Your task to perform on an android device: toggle wifi Image 0: 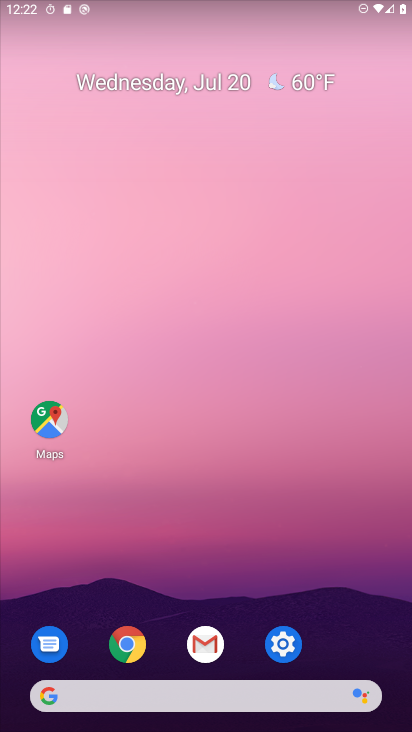
Step 0: click (274, 643)
Your task to perform on an android device: toggle wifi Image 1: 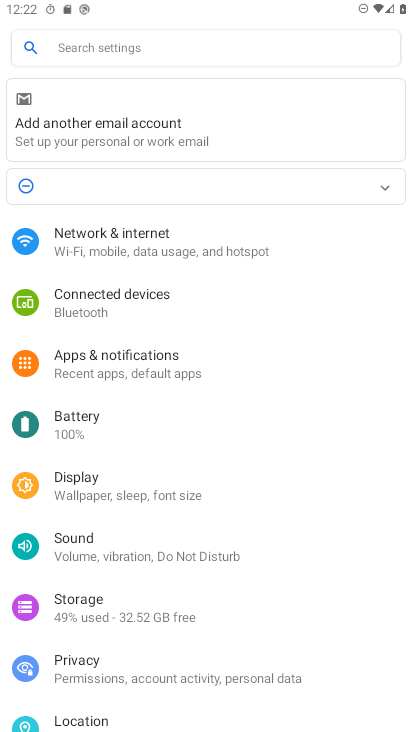
Step 1: click (119, 234)
Your task to perform on an android device: toggle wifi Image 2: 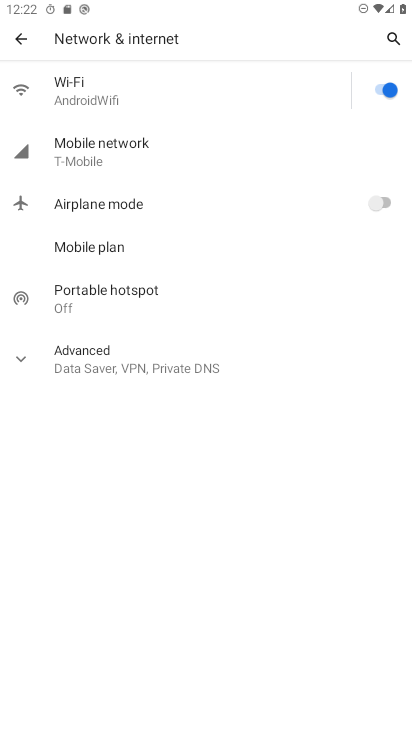
Step 2: click (99, 108)
Your task to perform on an android device: toggle wifi Image 3: 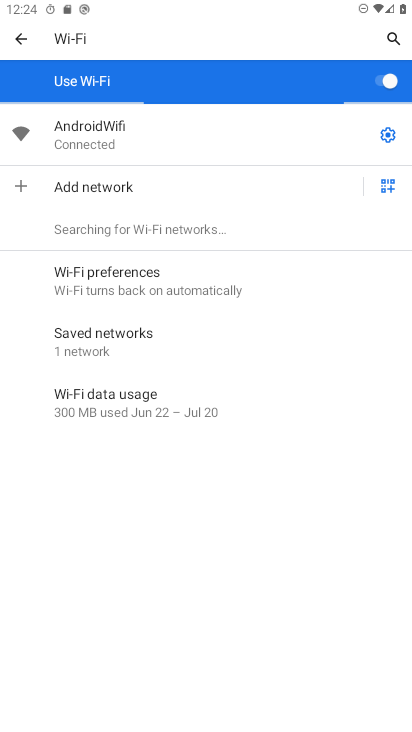
Step 3: task complete